Your task to perform on an android device: What's on my calendar tomorrow? Image 0: 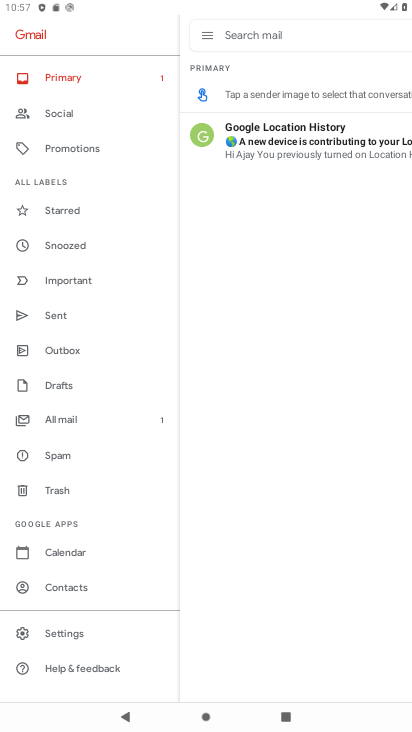
Step 0: press home button
Your task to perform on an android device: What's on my calendar tomorrow? Image 1: 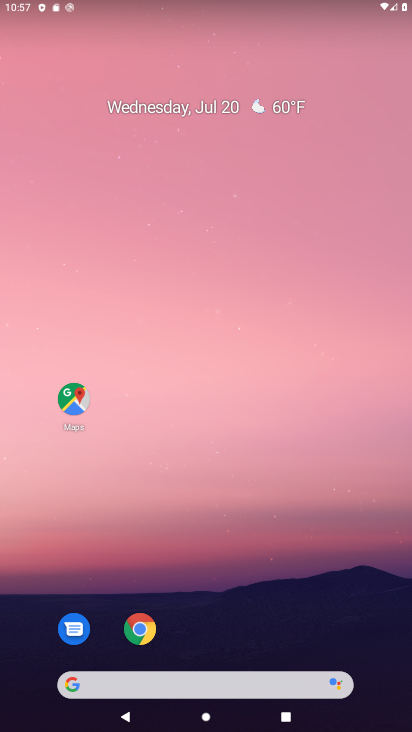
Step 1: drag from (199, 615) to (227, 136)
Your task to perform on an android device: What's on my calendar tomorrow? Image 2: 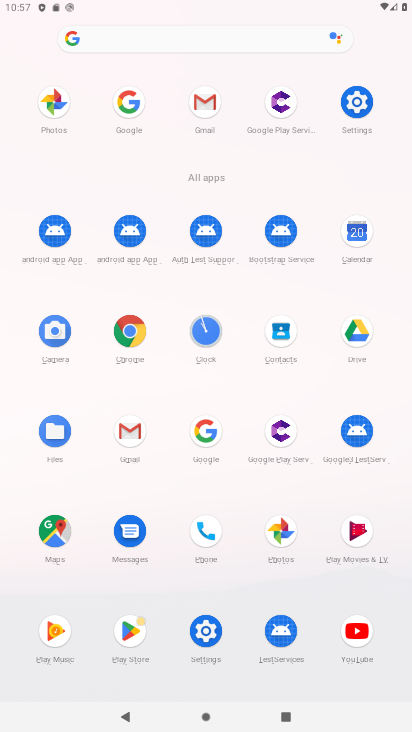
Step 2: click (352, 243)
Your task to perform on an android device: What's on my calendar tomorrow? Image 3: 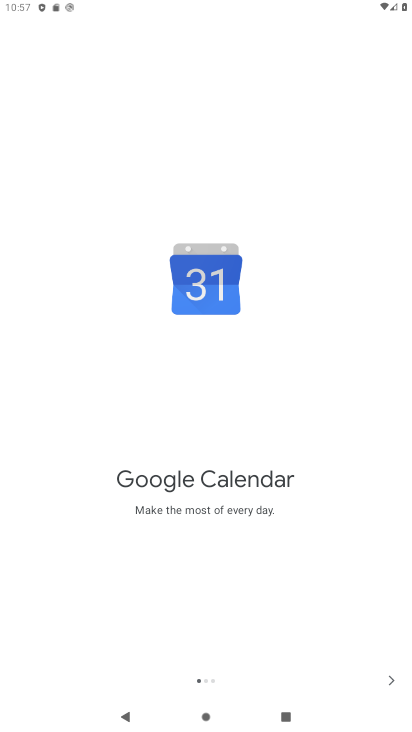
Step 3: click (395, 681)
Your task to perform on an android device: What's on my calendar tomorrow? Image 4: 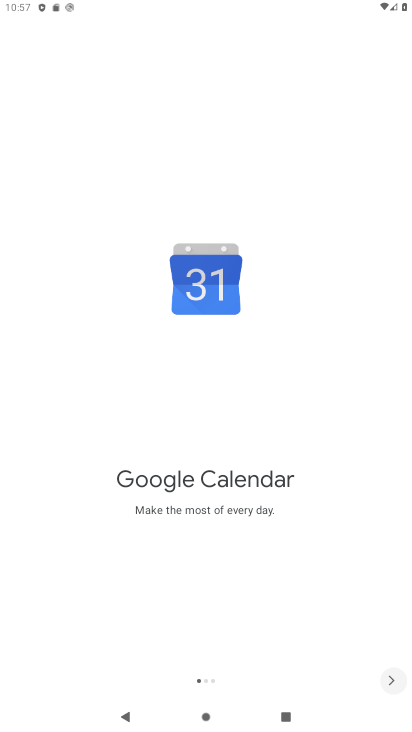
Step 4: click (395, 681)
Your task to perform on an android device: What's on my calendar tomorrow? Image 5: 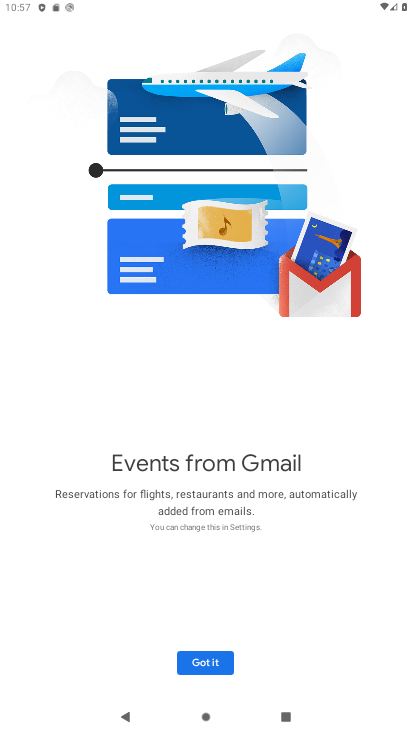
Step 5: click (221, 663)
Your task to perform on an android device: What's on my calendar tomorrow? Image 6: 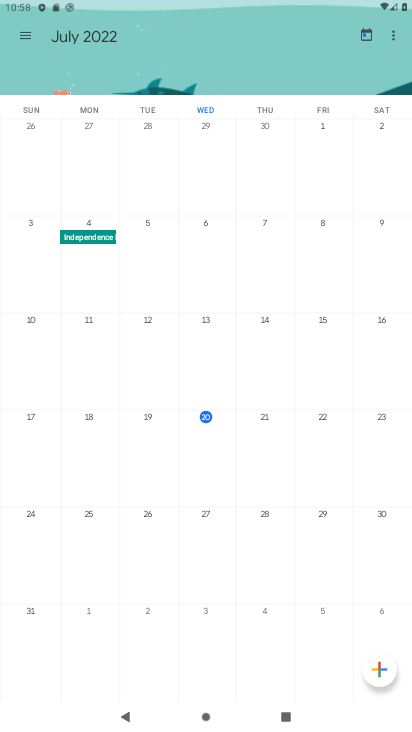
Step 6: click (256, 442)
Your task to perform on an android device: What's on my calendar tomorrow? Image 7: 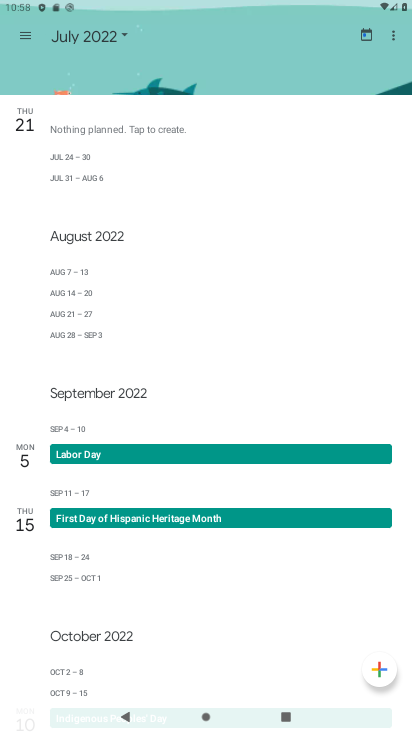
Step 7: task complete